Your task to perform on an android device: What's the weather going to be this weekend? Image 0: 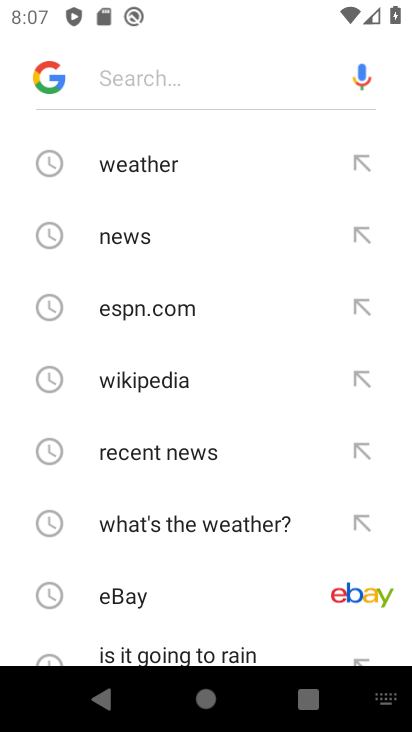
Step 0: click (127, 80)
Your task to perform on an android device: What's the weather going to be this weekend? Image 1: 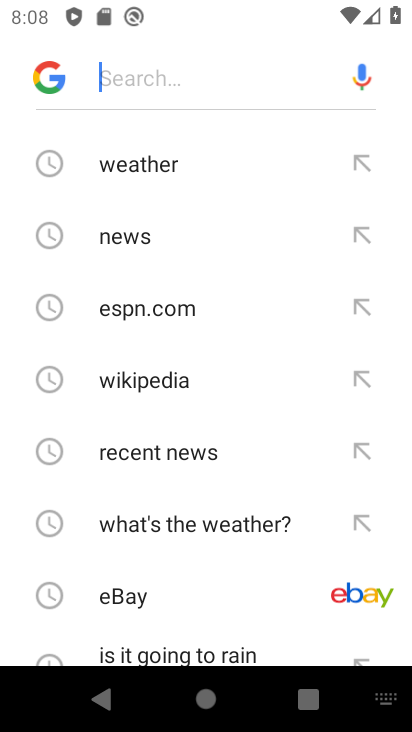
Step 1: type "whats the weather going to be this weekend"
Your task to perform on an android device: What's the weather going to be this weekend? Image 2: 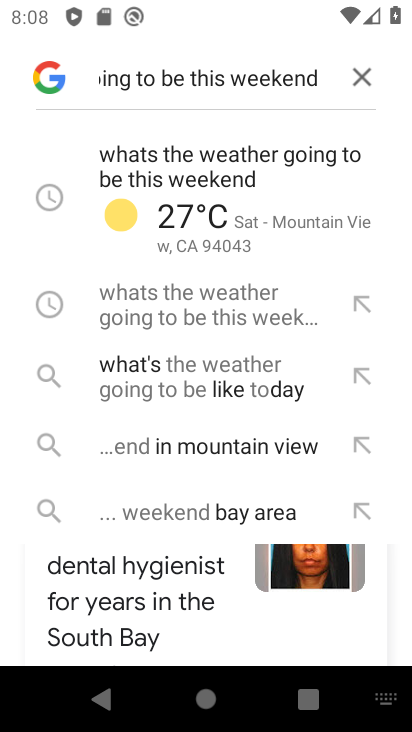
Step 2: click (204, 174)
Your task to perform on an android device: What's the weather going to be this weekend? Image 3: 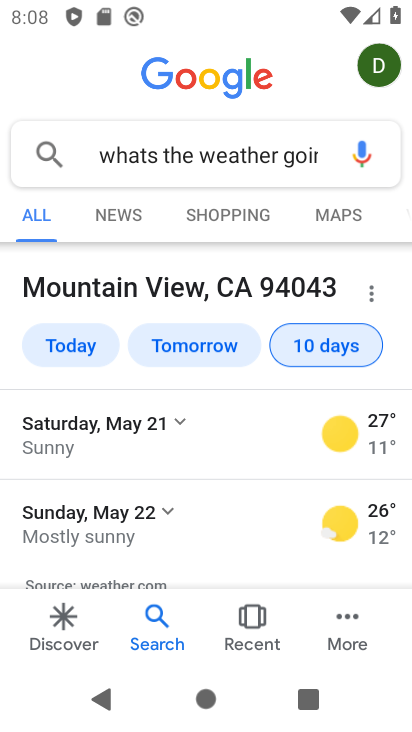
Step 3: task complete